Your task to perform on an android device: toggle improve location accuracy Image 0: 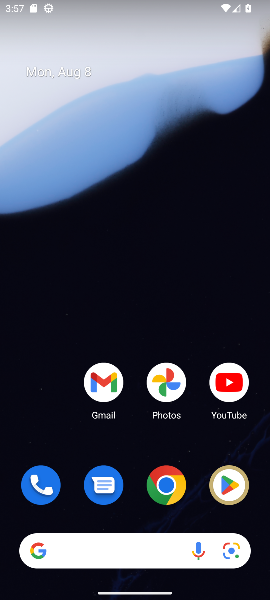
Step 0: drag from (183, 499) to (224, 119)
Your task to perform on an android device: toggle improve location accuracy Image 1: 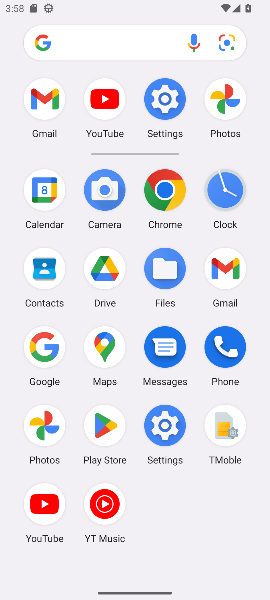
Step 1: click (156, 422)
Your task to perform on an android device: toggle improve location accuracy Image 2: 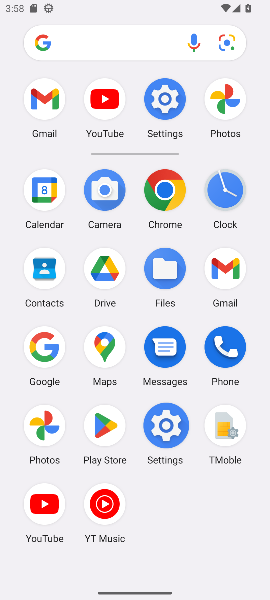
Step 2: click (157, 422)
Your task to perform on an android device: toggle improve location accuracy Image 3: 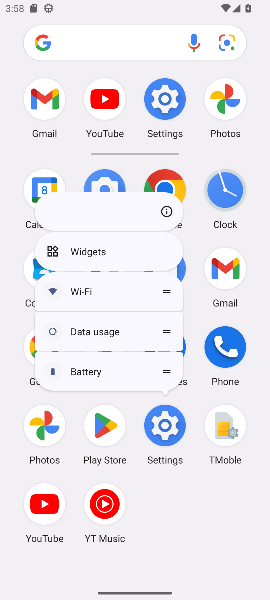
Step 3: click (158, 422)
Your task to perform on an android device: toggle improve location accuracy Image 4: 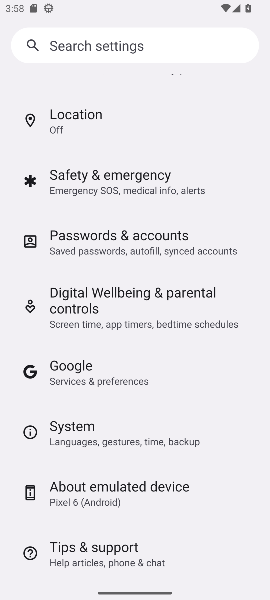
Step 4: click (61, 121)
Your task to perform on an android device: toggle improve location accuracy Image 5: 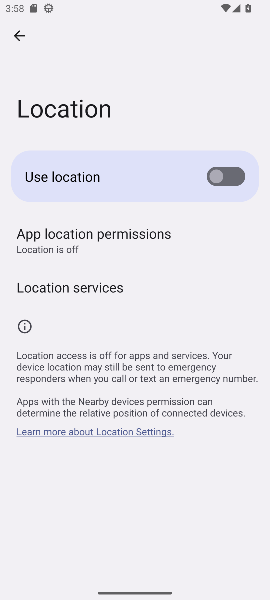
Step 5: click (67, 287)
Your task to perform on an android device: toggle improve location accuracy Image 6: 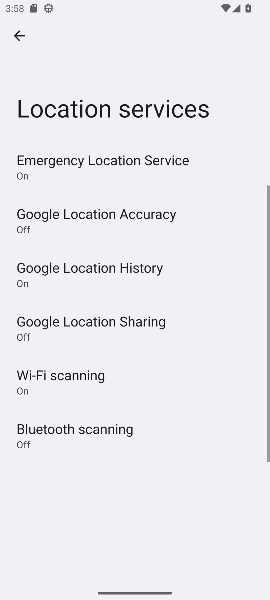
Step 6: click (124, 216)
Your task to perform on an android device: toggle improve location accuracy Image 7: 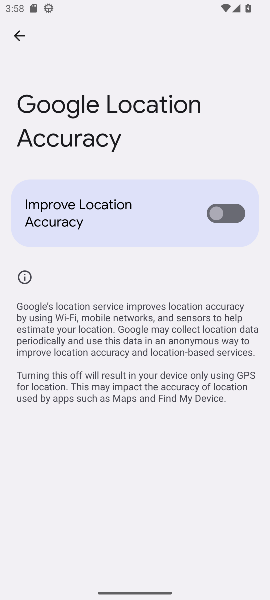
Step 7: click (213, 210)
Your task to perform on an android device: toggle improve location accuracy Image 8: 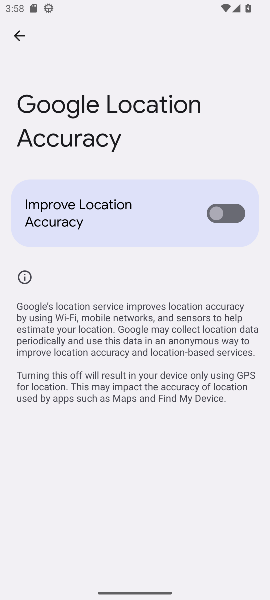
Step 8: click (219, 211)
Your task to perform on an android device: toggle improve location accuracy Image 9: 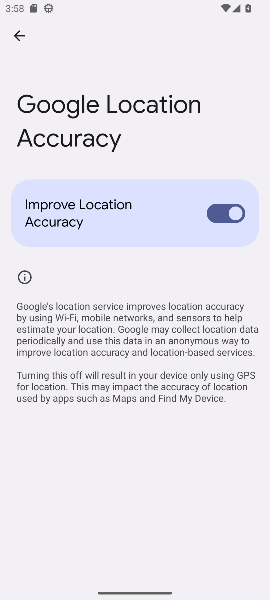
Step 9: task complete